Your task to perform on an android device: remove spam from my inbox in the gmail app Image 0: 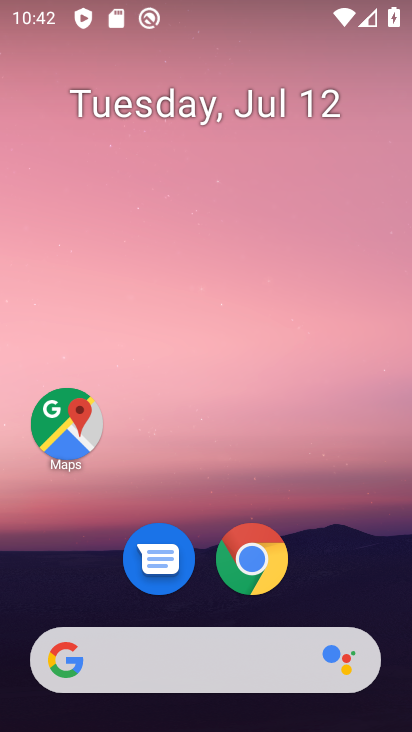
Step 0: click (406, 12)
Your task to perform on an android device: remove spam from my inbox in the gmail app Image 1: 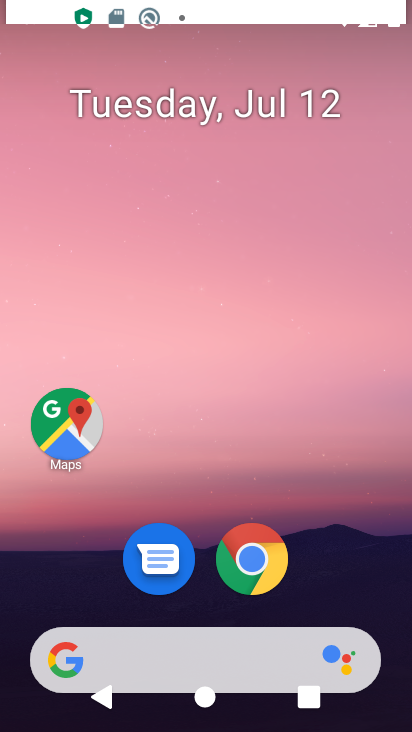
Step 1: drag from (214, 697) to (243, 94)
Your task to perform on an android device: remove spam from my inbox in the gmail app Image 2: 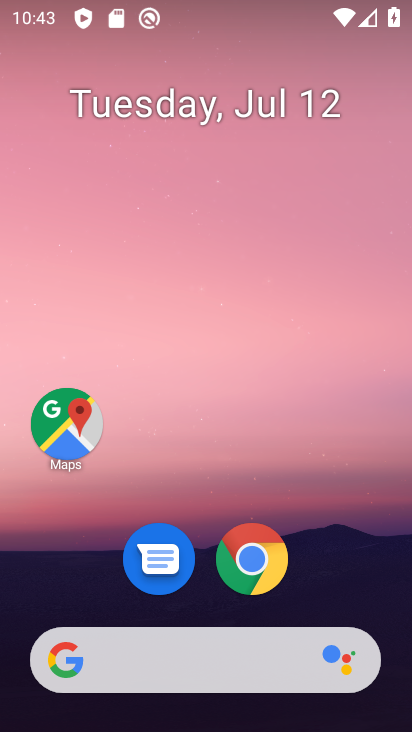
Step 2: drag from (206, 647) to (170, 195)
Your task to perform on an android device: remove spam from my inbox in the gmail app Image 3: 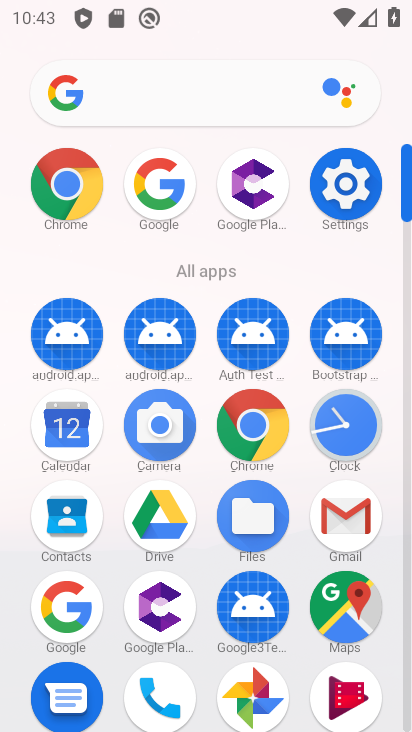
Step 3: click (352, 544)
Your task to perform on an android device: remove spam from my inbox in the gmail app Image 4: 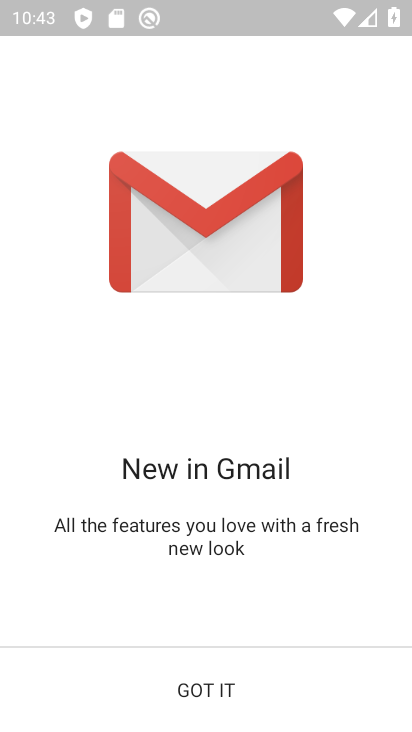
Step 4: click (217, 691)
Your task to perform on an android device: remove spam from my inbox in the gmail app Image 5: 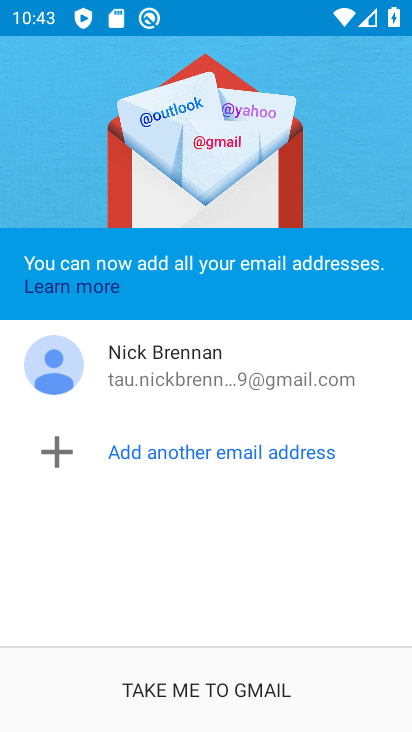
Step 5: click (195, 699)
Your task to perform on an android device: remove spam from my inbox in the gmail app Image 6: 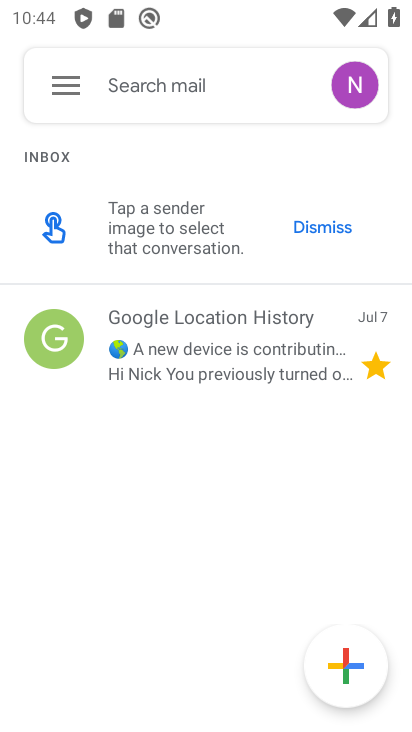
Step 6: click (64, 87)
Your task to perform on an android device: remove spam from my inbox in the gmail app Image 7: 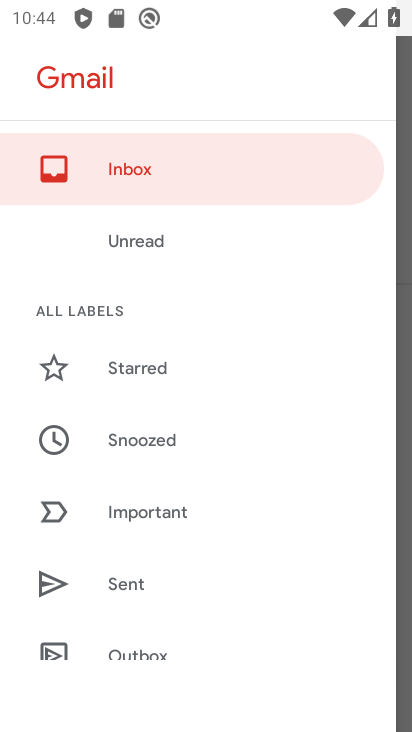
Step 7: drag from (134, 541) to (159, 168)
Your task to perform on an android device: remove spam from my inbox in the gmail app Image 8: 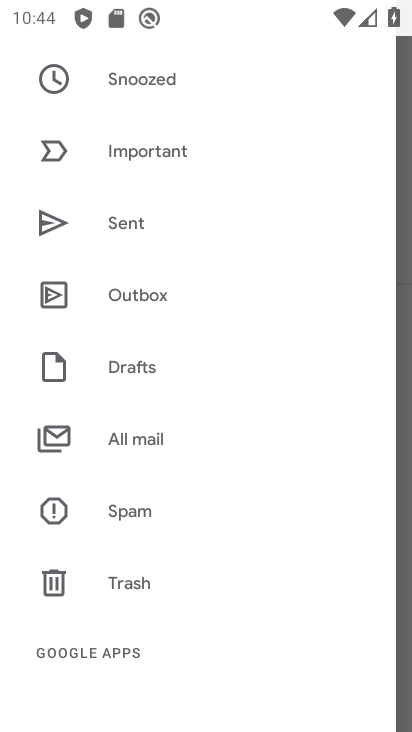
Step 8: drag from (150, 497) to (146, 248)
Your task to perform on an android device: remove spam from my inbox in the gmail app Image 9: 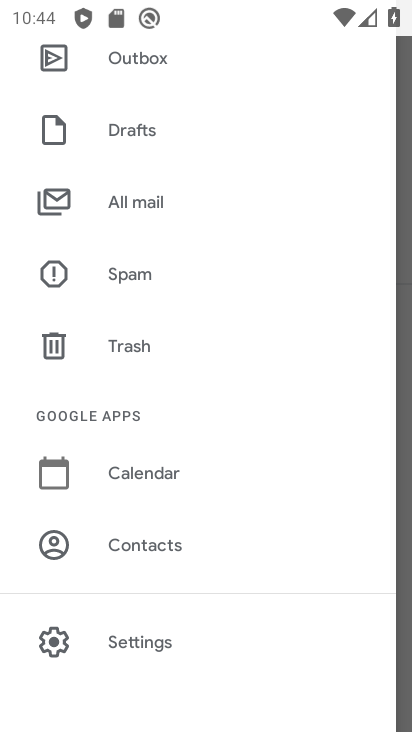
Step 9: click (125, 283)
Your task to perform on an android device: remove spam from my inbox in the gmail app Image 10: 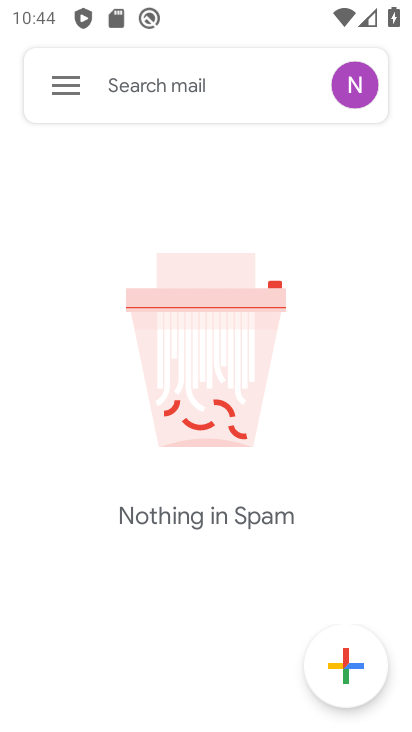
Step 10: task complete